Your task to perform on an android device: Open calendar and show me the third week of next month Image 0: 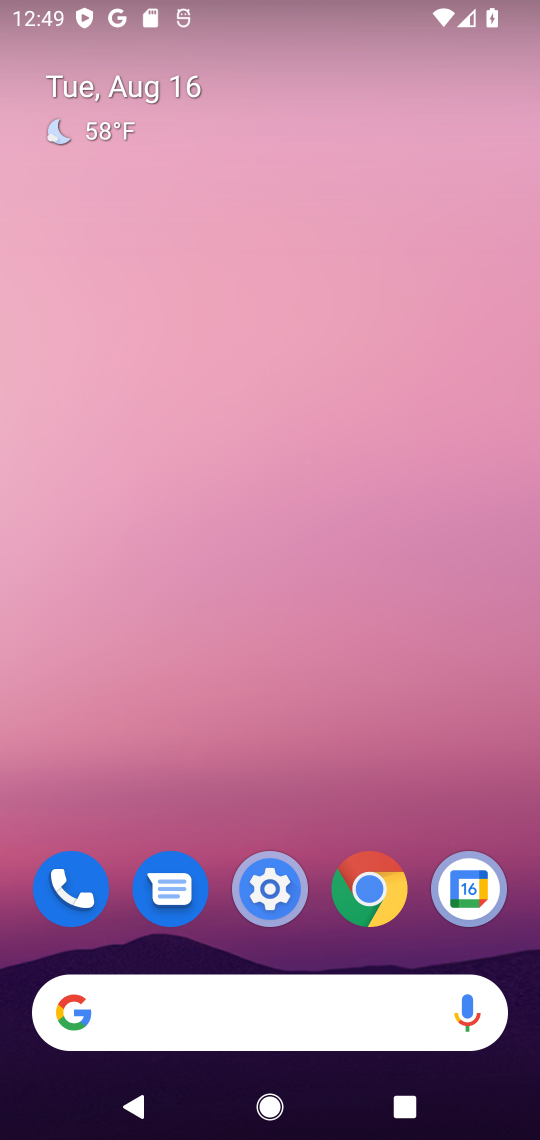
Step 0: drag from (178, 893) to (356, 1)
Your task to perform on an android device: Open calendar and show me the third week of next month Image 1: 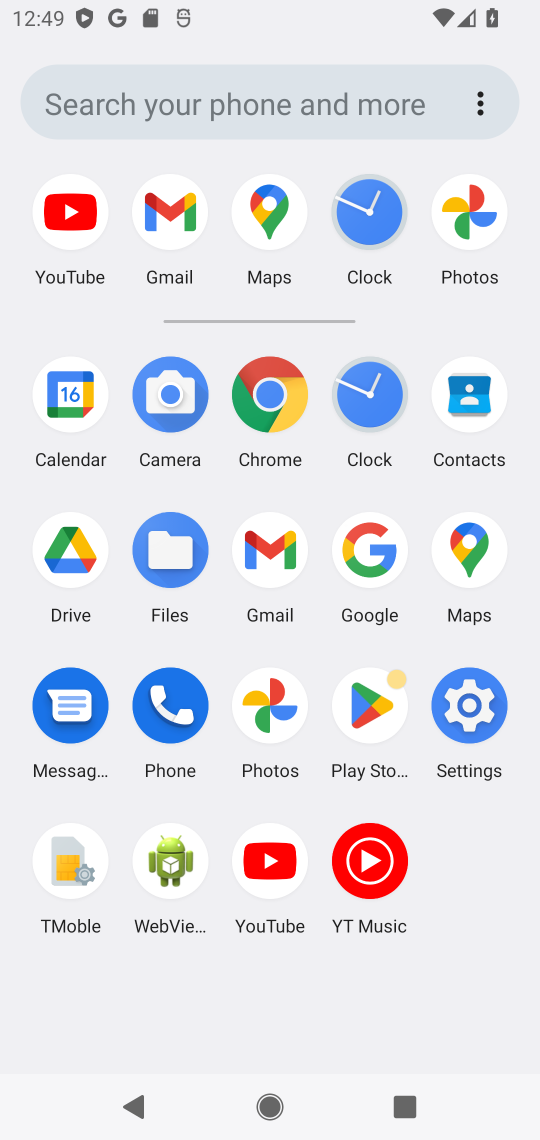
Step 1: click (479, 399)
Your task to perform on an android device: Open calendar and show me the third week of next month Image 2: 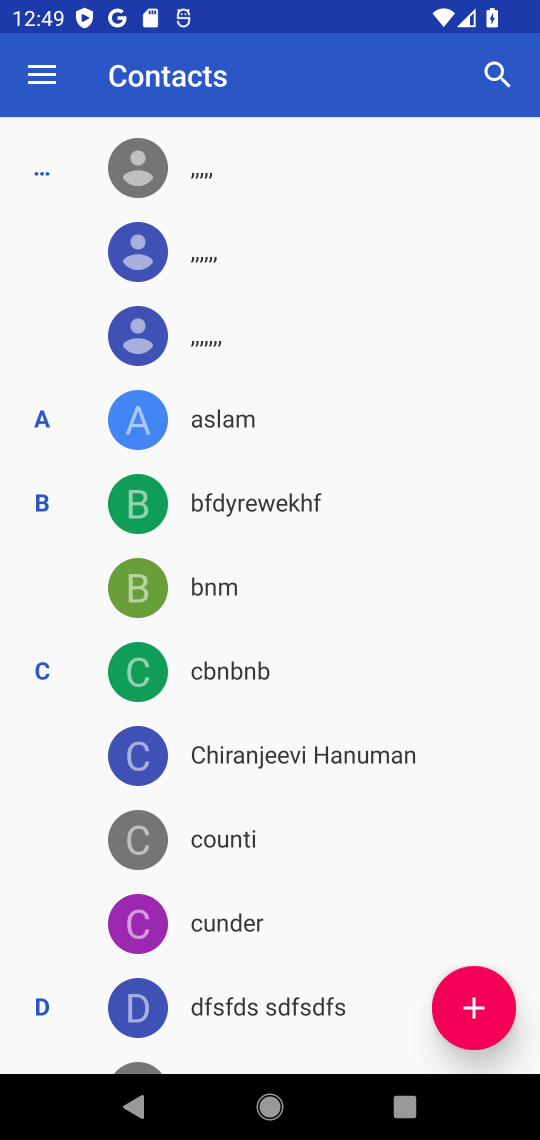
Step 2: press home button
Your task to perform on an android device: Open calendar and show me the third week of next month Image 3: 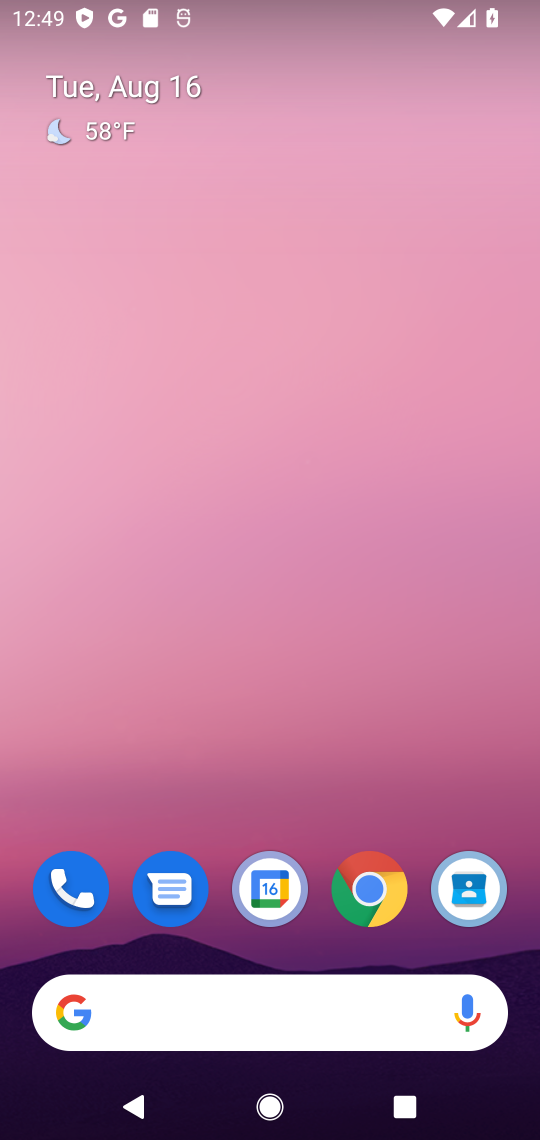
Step 3: drag from (318, 1024) to (404, 116)
Your task to perform on an android device: Open calendar and show me the third week of next month Image 4: 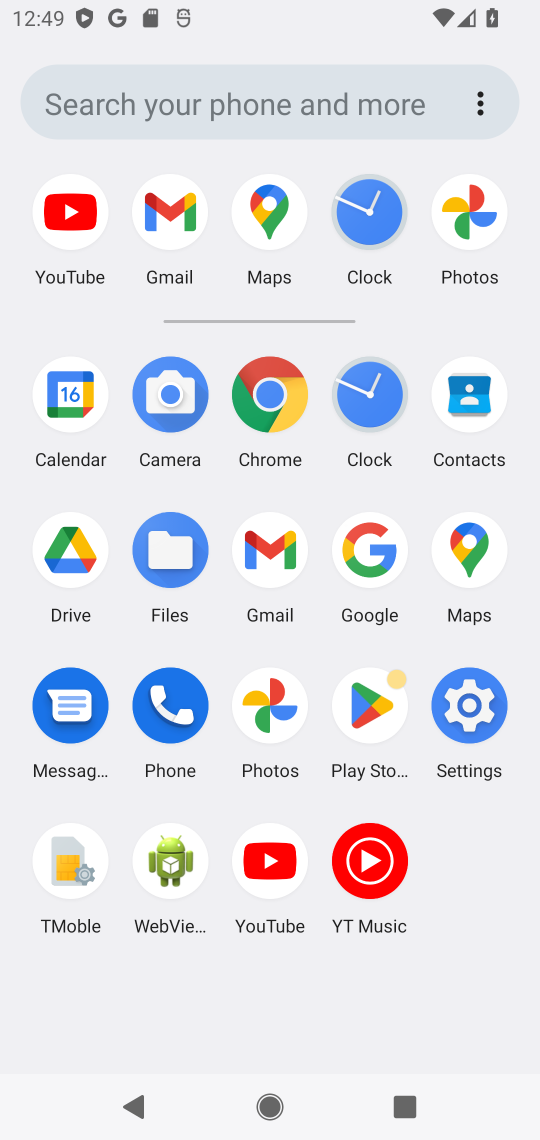
Step 4: click (56, 396)
Your task to perform on an android device: Open calendar and show me the third week of next month Image 5: 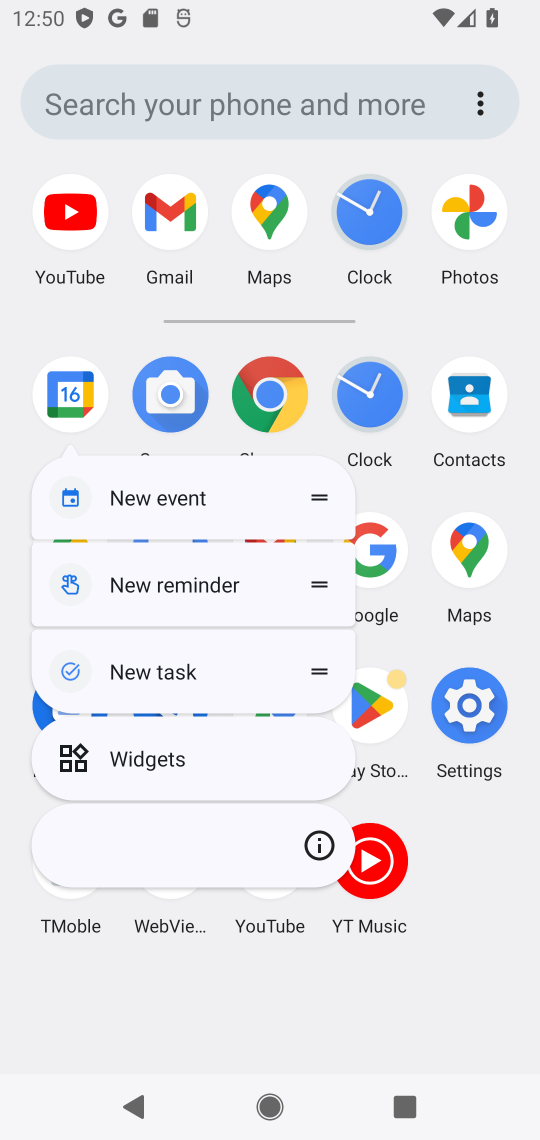
Step 5: click (75, 396)
Your task to perform on an android device: Open calendar and show me the third week of next month Image 6: 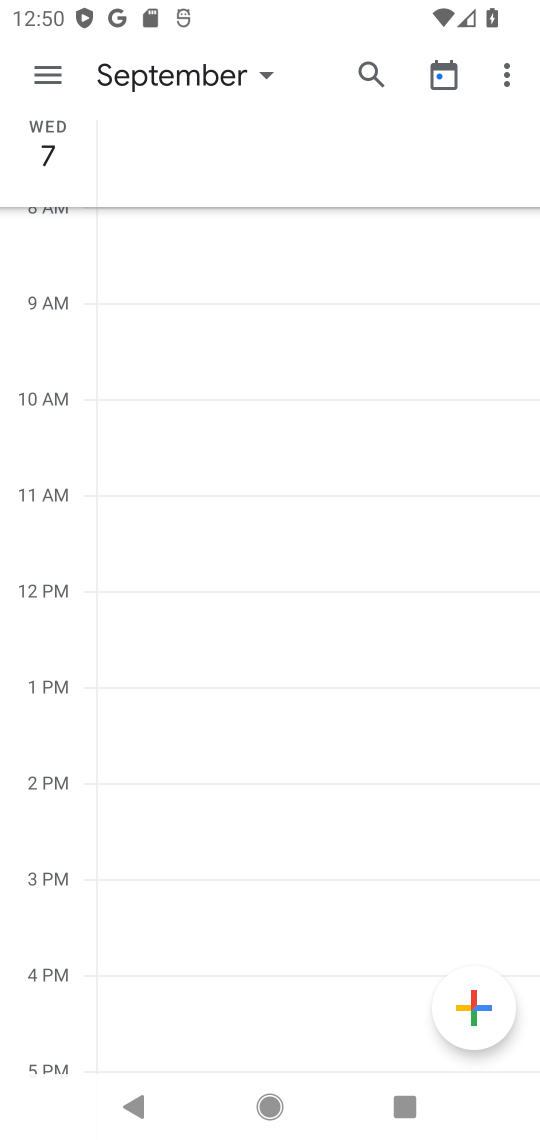
Step 6: click (217, 75)
Your task to perform on an android device: Open calendar and show me the third week of next month Image 7: 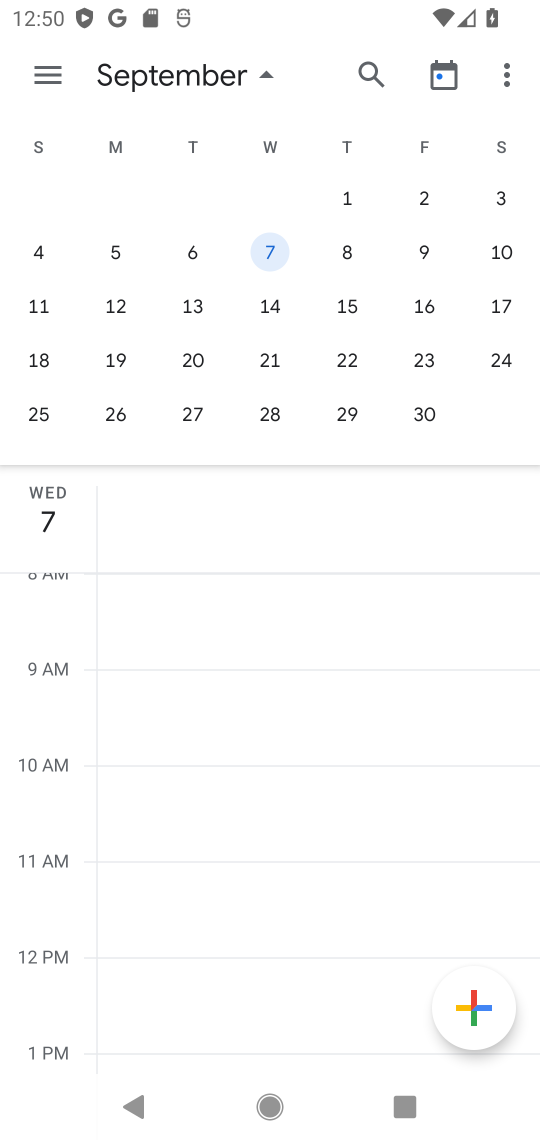
Step 7: drag from (486, 368) to (110, 1032)
Your task to perform on an android device: Open calendar and show me the third week of next month Image 8: 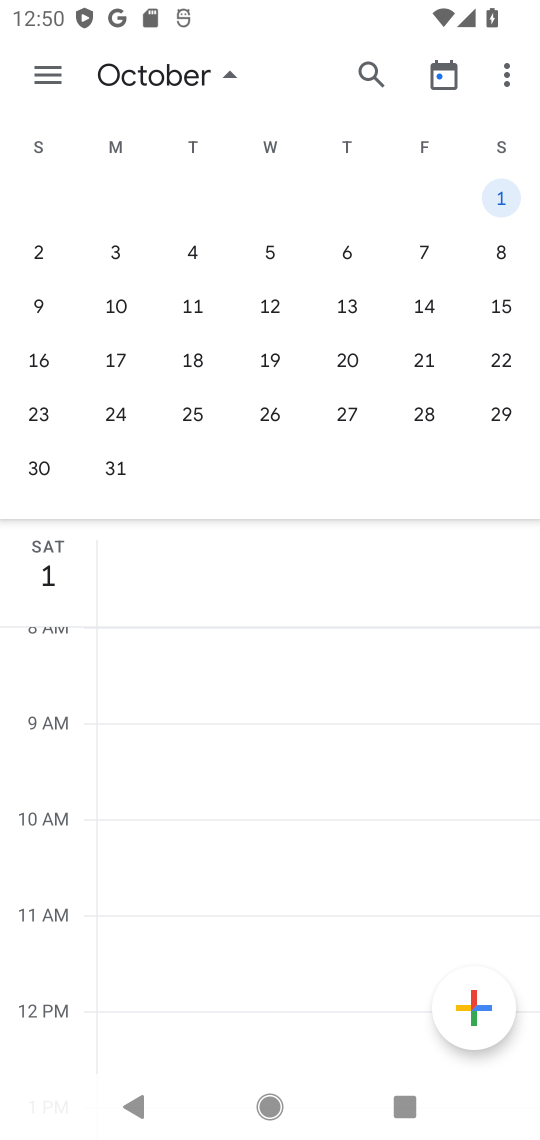
Step 8: click (412, 380)
Your task to perform on an android device: Open calendar and show me the third week of next month Image 9: 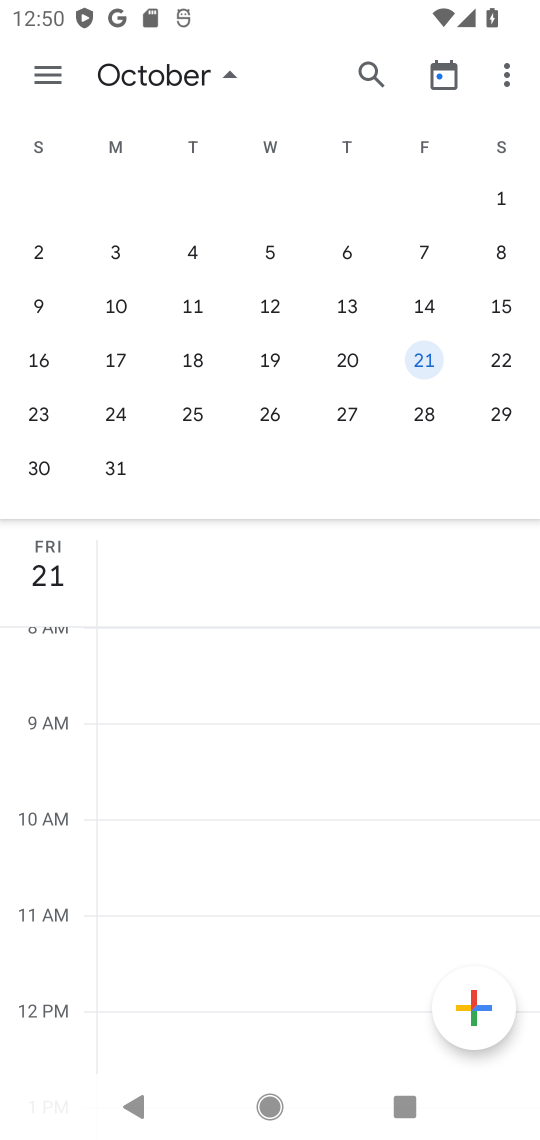
Step 9: task complete